Your task to perform on an android device: check data usage Image 0: 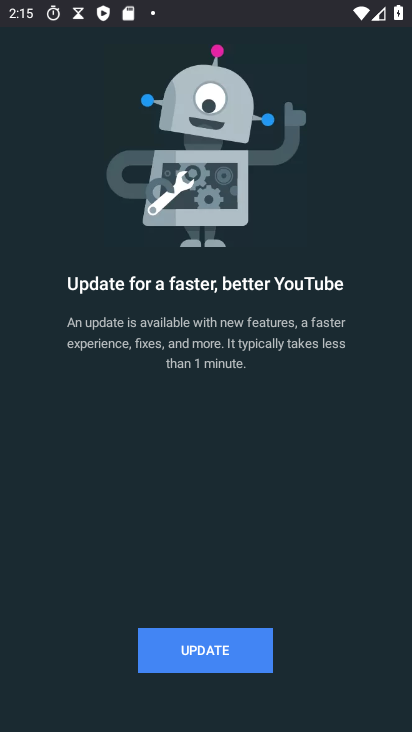
Step 0: press home button
Your task to perform on an android device: check data usage Image 1: 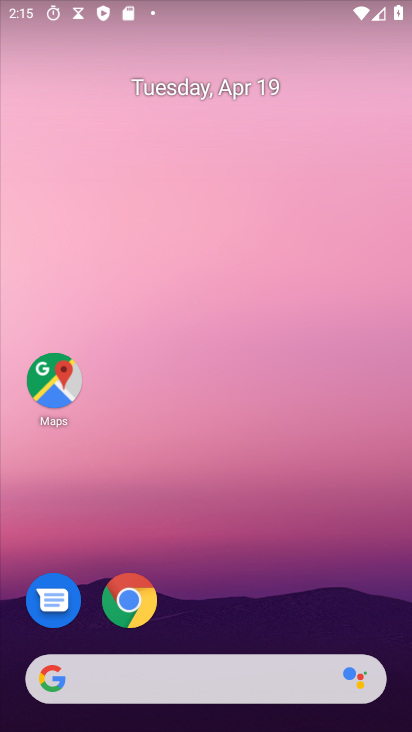
Step 1: drag from (292, 712) to (381, 175)
Your task to perform on an android device: check data usage Image 2: 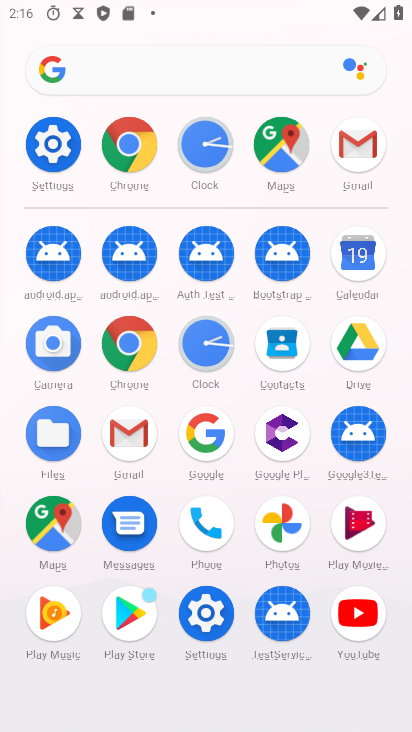
Step 2: click (39, 177)
Your task to perform on an android device: check data usage Image 3: 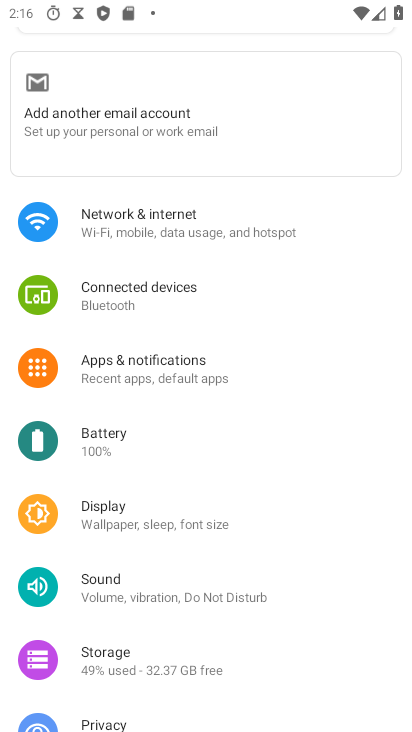
Step 3: drag from (172, 82) to (174, 143)
Your task to perform on an android device: check data usage Image 4: 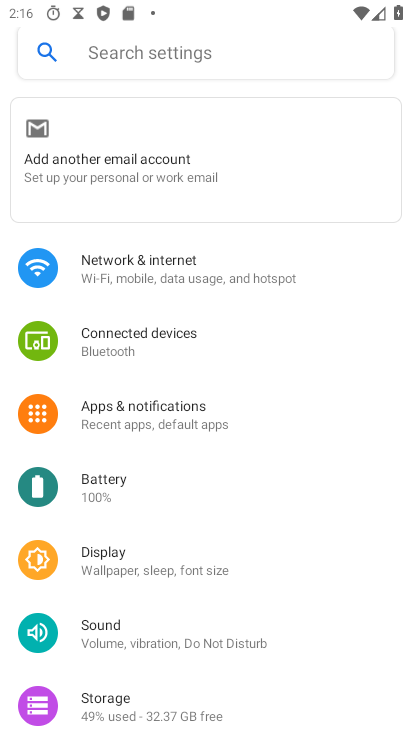
Step 4: click (157, 41)
Your task to perform on an android device: check data usage Image 5: 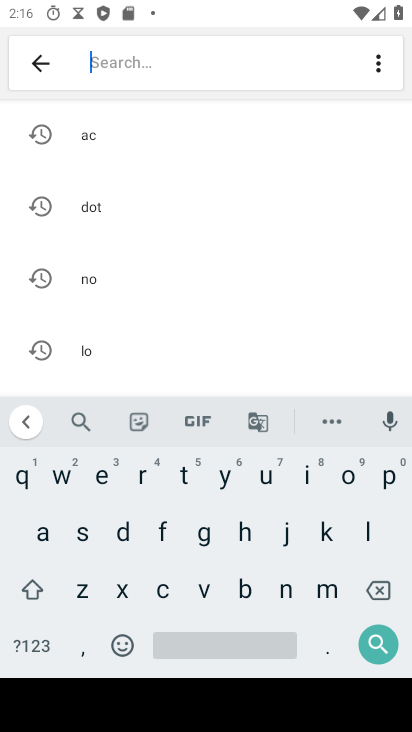
Step 5: click (120, 524)
Your task to perform on an android device: check data usage Image 6: 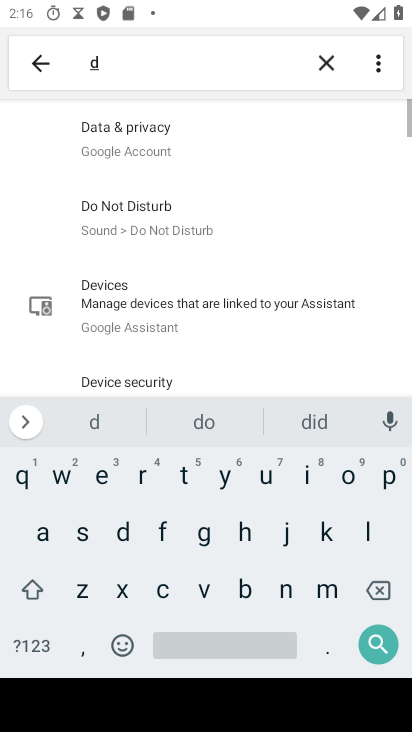
Step 6: click (40, 527)
Your task to perform on an android device: check data usage Image 7: 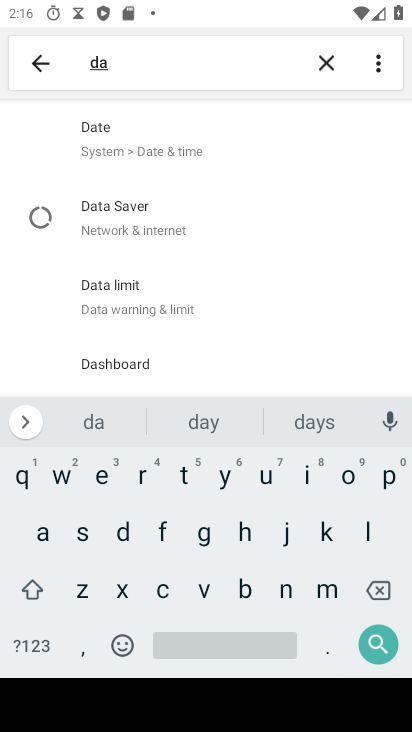
Step 7: click (189, 476)
Your task to perform on an android device: check data usage Image 8: 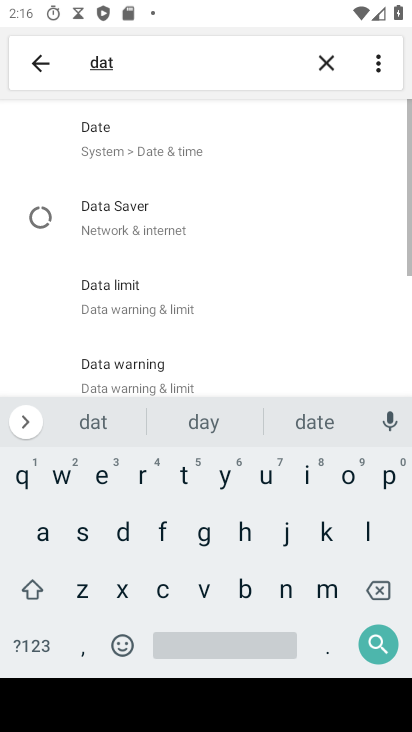
Step 8: click (42, 533)
Your task to perform on an android device: check data usage Image 9: 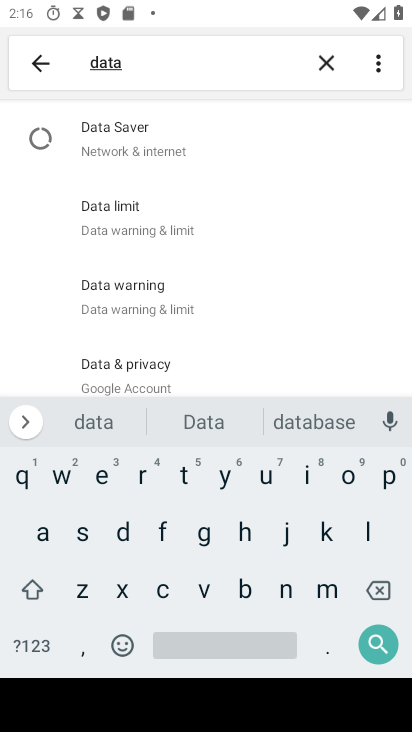
Step 9: drag from (264, 636) to (267, 599)
Your task to perform on an android device: check data usage Image 10: 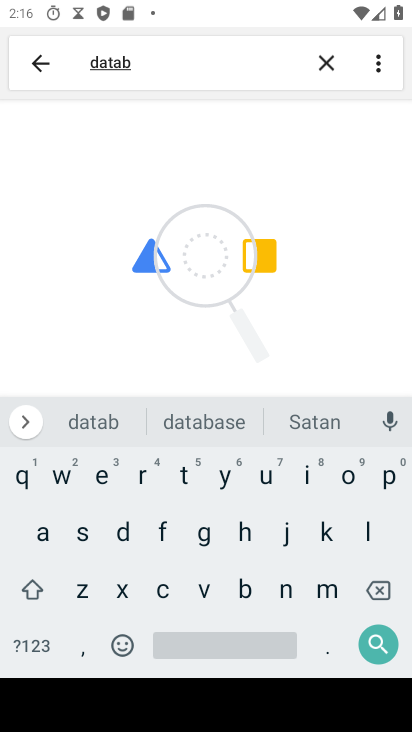
Step 10: click (375, 594)
Your task to perform on an android device: check data usage Image 11: 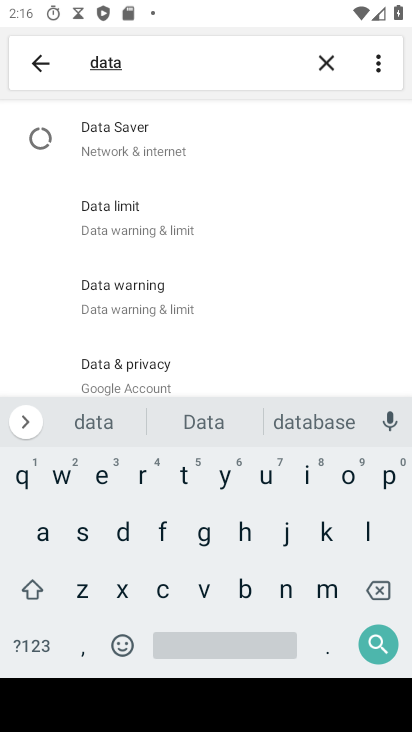
Step 11: click (247, 640)
Your task to perform on an android device: check data usage Image 12: 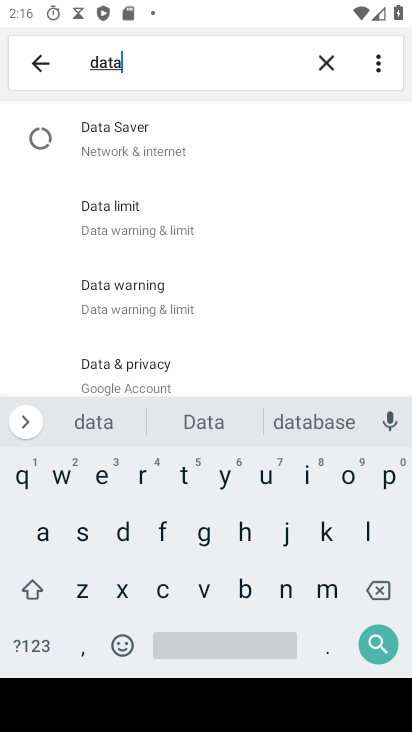
Step 12: click (265, 483)
Your task to perform on an android device: check data usage Image 13: 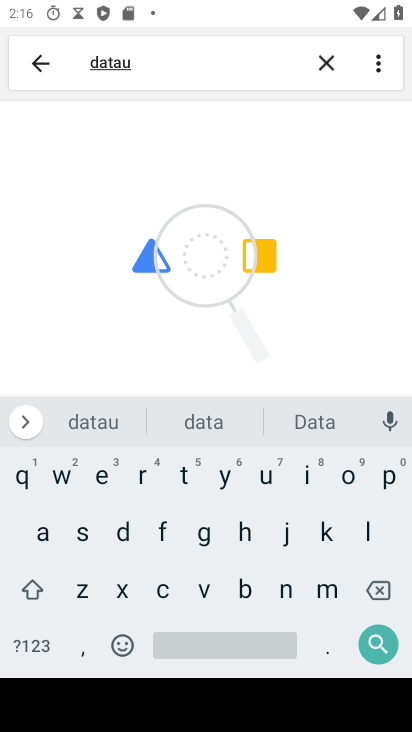
Step 13: click (388, 586)
Your task to perform on an android device: check data usage Image 14: 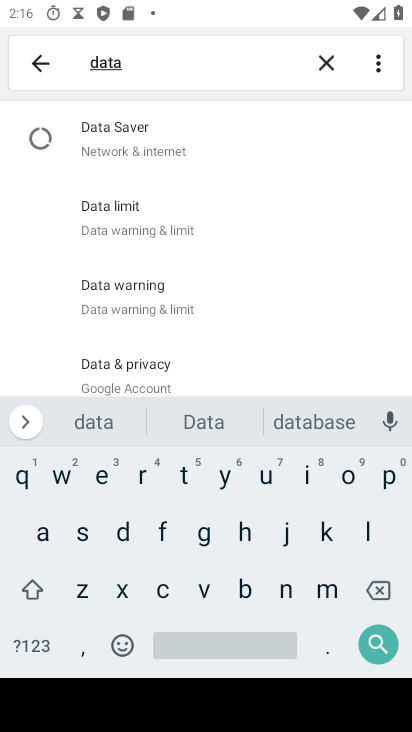
Step 14: drag from (176, 348) to (224, 224)
Your task to perform on an android device: check data usage Image 15: 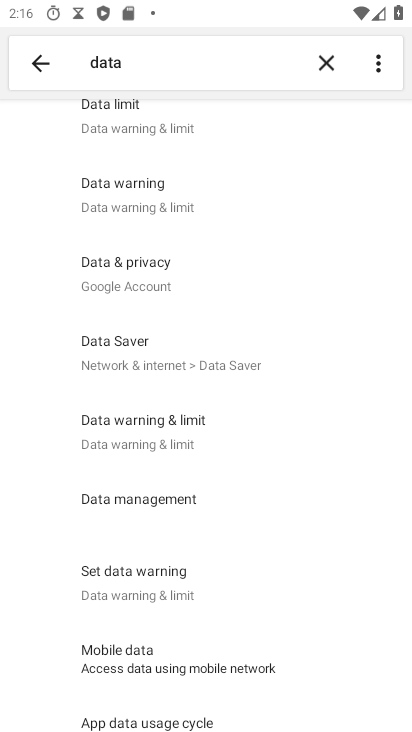
Step 15: drag from (153, 653) to (222, 448)
Your task to perform on an android device: check data usage Image 16: 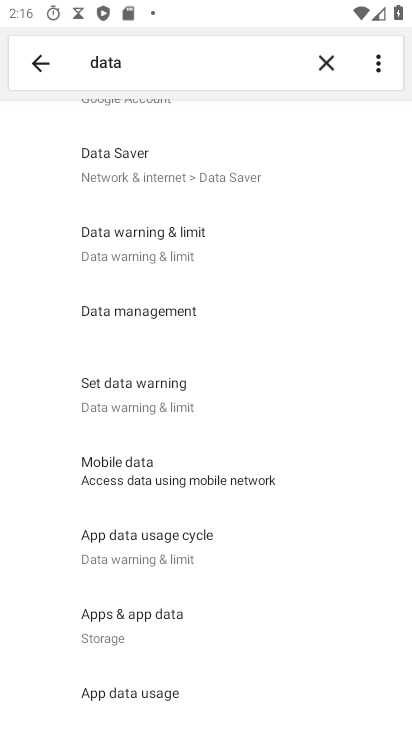
Step 16: click (143, 690)
Your task to perform on an android device: check data usage Image 17: 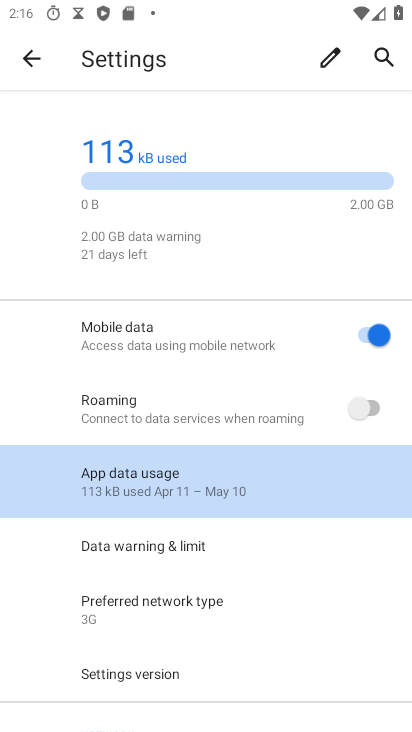
Step 17: click (125, 487)
Your task to perform on an android device: check data usage Image 18: 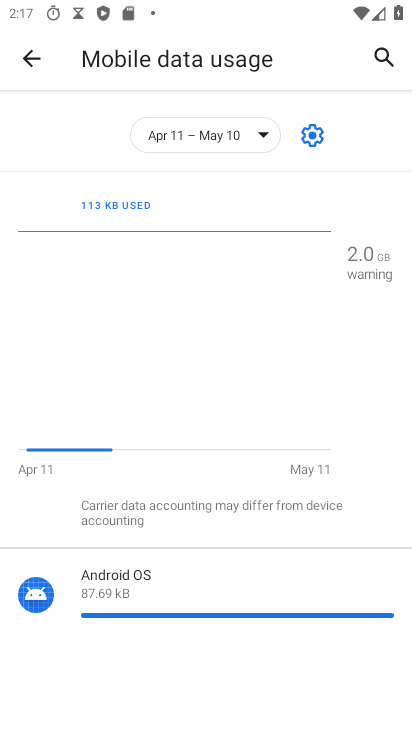
Step 18: task complete